Your task to perform on an android device: toggle airplane mode Image 0: 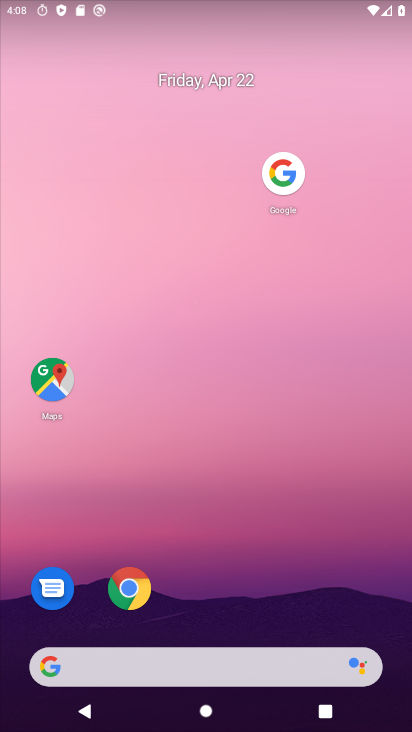
Step 0: drag from (202, 531) to (202, 51)
Your task to perform on an android device: toggle airplane mode Image 1: 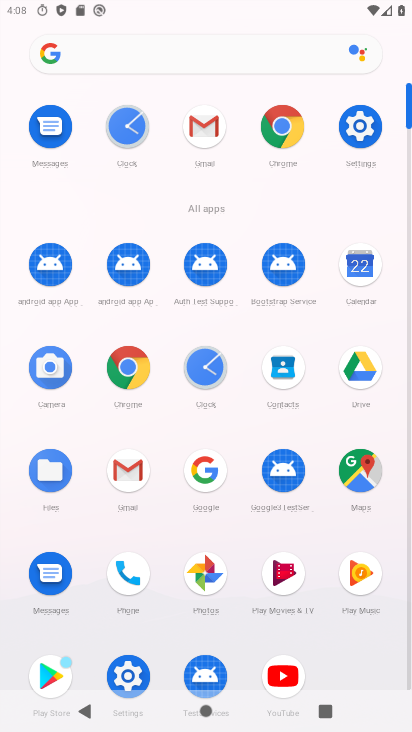
Step 1: click (362, 128)
Your task to perform on an android device: toggle airplane mode Image 2: 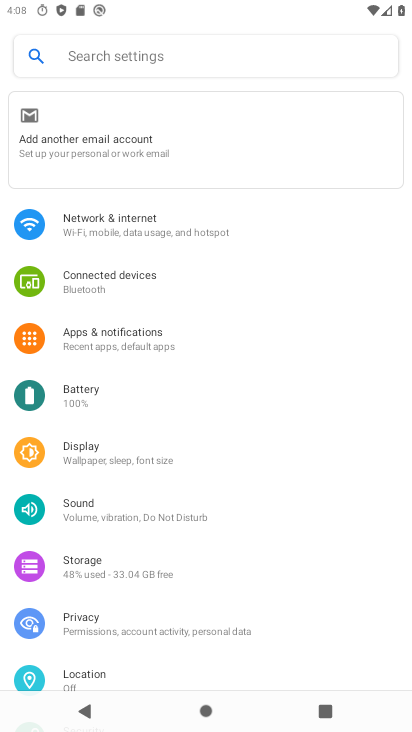
Step 2: click (87, 224)
Your task to perform on an android device: toggle airplane mode Image 3: 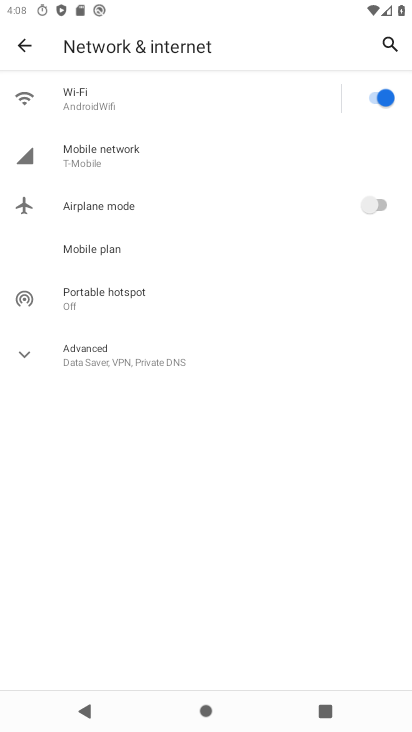
Step 3: click (98, 215)
Your task to perform on an android device: toggle airplane mode Image 4: 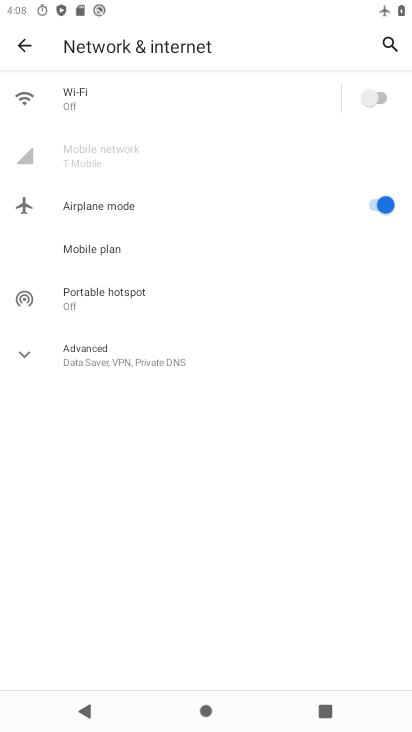
Step 4: task complete